Your task to perform on an android device: What is the news today? Image 0: 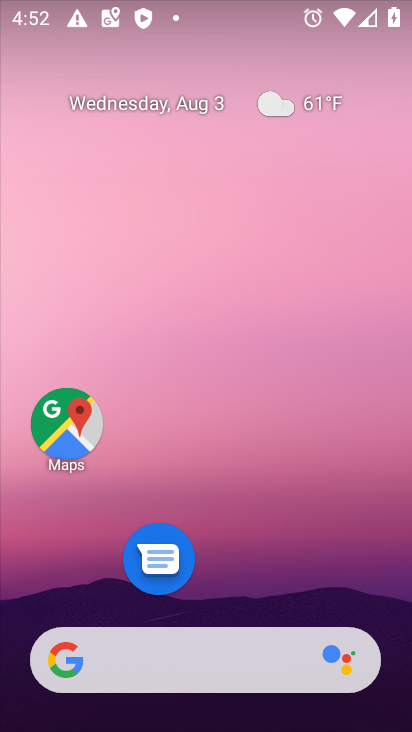
Step 0: drag from (204, 639) to (163, 265)
Your task to perform on an android device: What is the news today? Image 1: 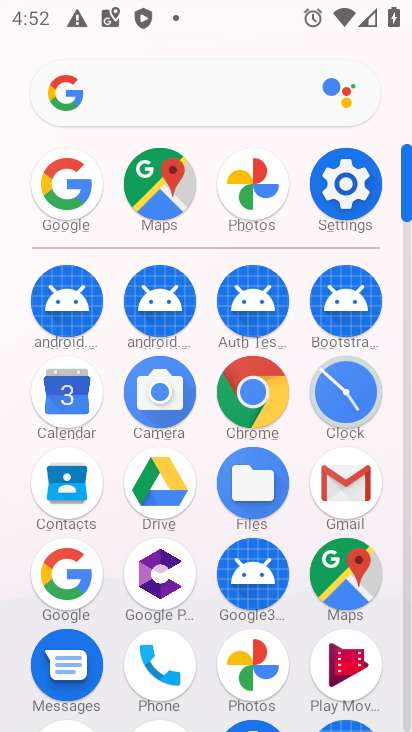
Step 1: click (68, 575)
Your task to perform on an android device: What is the news today? Image 2: 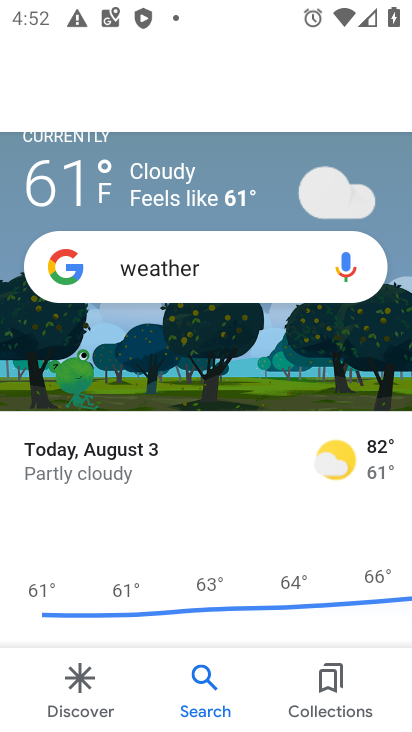
Step 2: click (179, 282)
Your task to perform on an android device: What is the news today? Image 3: 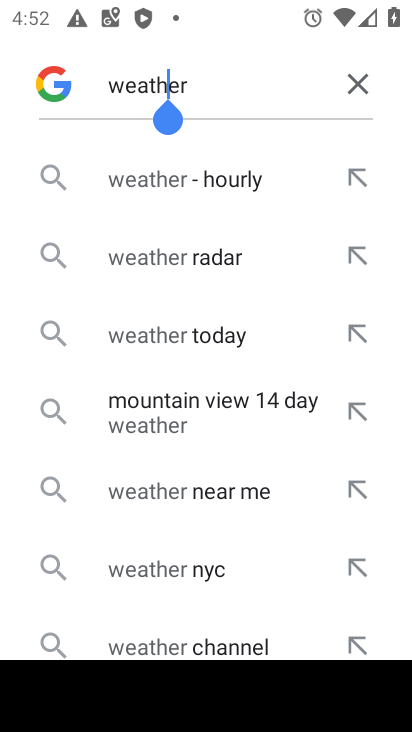
Step 3: click (363, 94)
Your task to perform on an android device: What is the news today? Image 4: 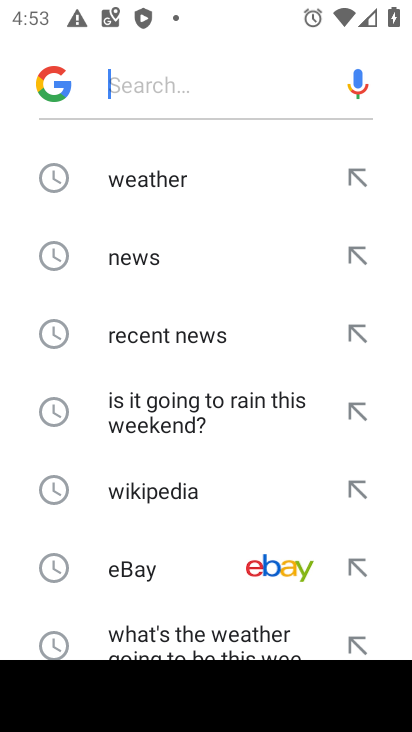
Step 4: click (148, 257)
Your task to perform on an android device: What is the news today? Image 5: 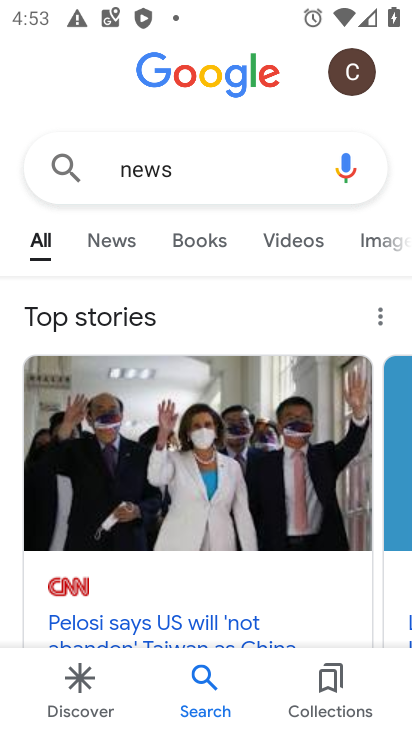
Step 5: task complete